Your task to perform on an android device: What is the news today? Image 0: 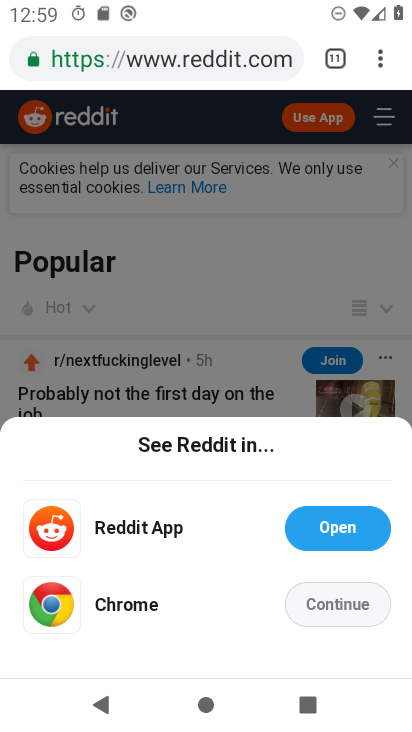
Step 0: press home button
Your task to perform on an android device: What is the news today? Image 1: 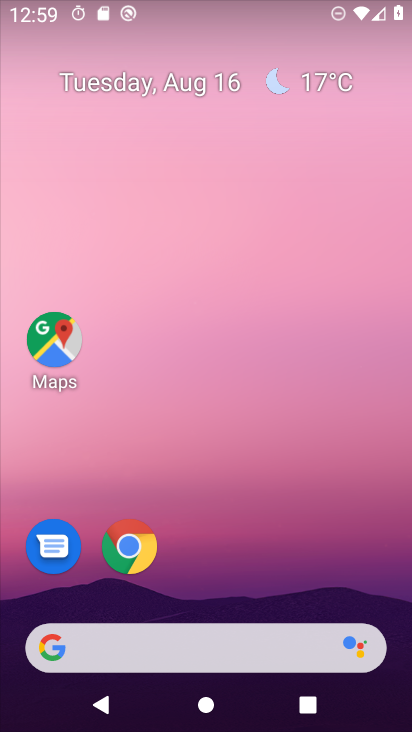
Step 1: task complete